Your task to perform on an android device: See recent photos Image 0: 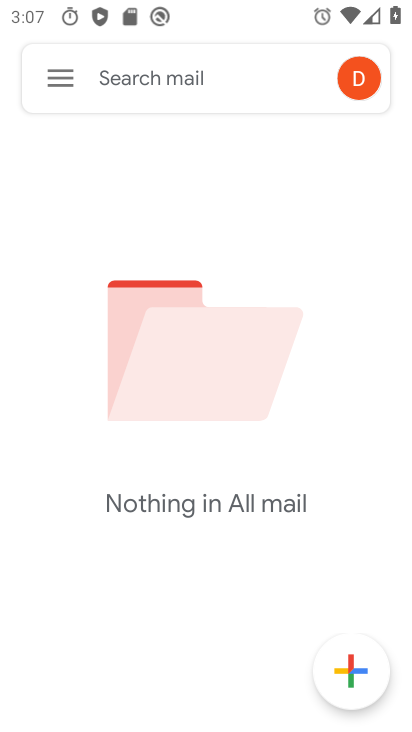
Step 0: press home button
Your task to perform on an android device: See recent photos Image 1: 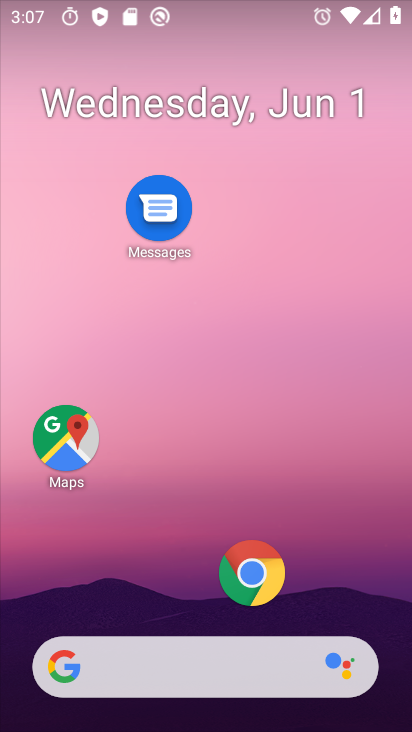
Step 1: drag from (181, 600) to (213, 252)
Your task to perform on an android device: See recent photos Image 2: 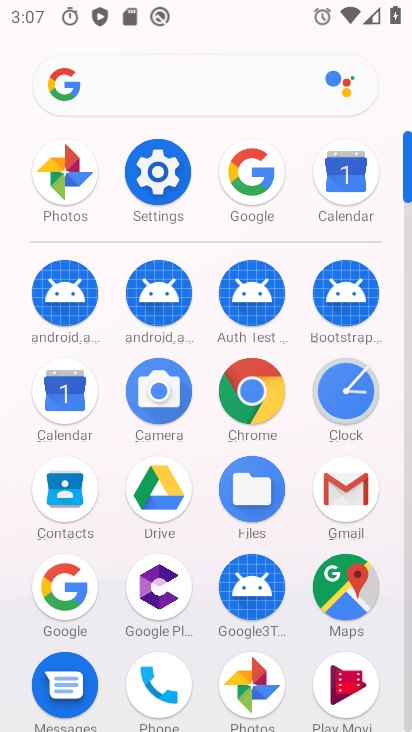
Step 2: click (252, 680)
Your task to perform on an android device: See recent photos Image 3: 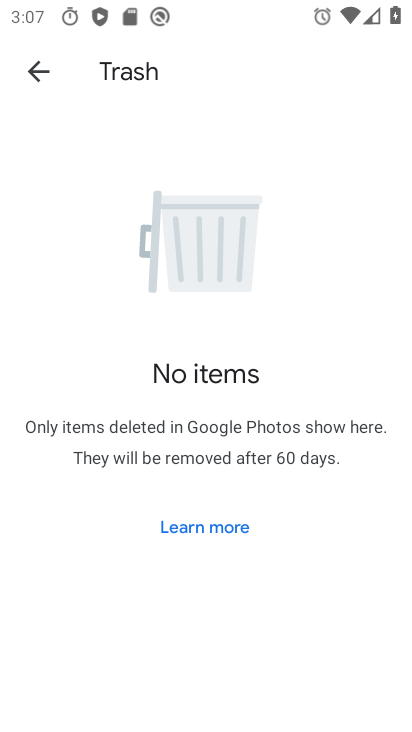
Step 3: click (48, 71)
Your task to perform on an android device: See recent photos Image 4: 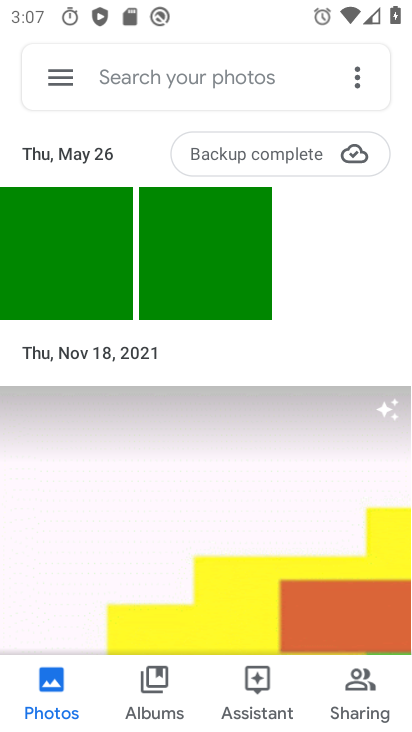
Step 4: click (48, 71)
Your task to perform on an android device: See recent photos Image 5: 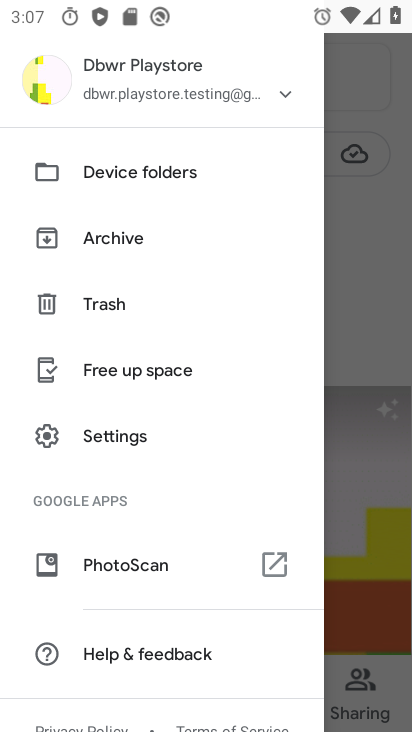
Step 5: click (358, 201)
Your task to perform on an android device: See recent photos Image 6: 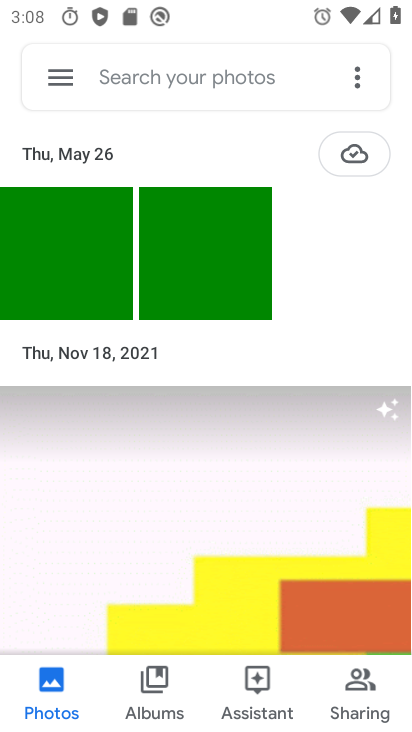
Step 6: task complete